Your task to perform on an android device: toggle improve location accuracy Image 0: 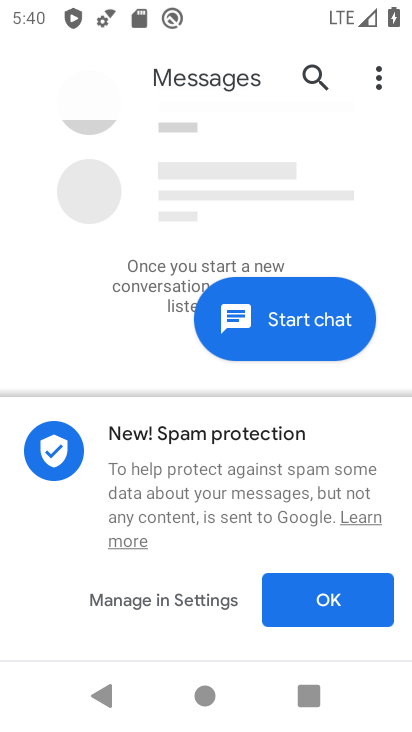
Step 0: drag from (326, 538) to (232, 112)
Your task to perform on an android device: toggle improve location accuracy Image 1: 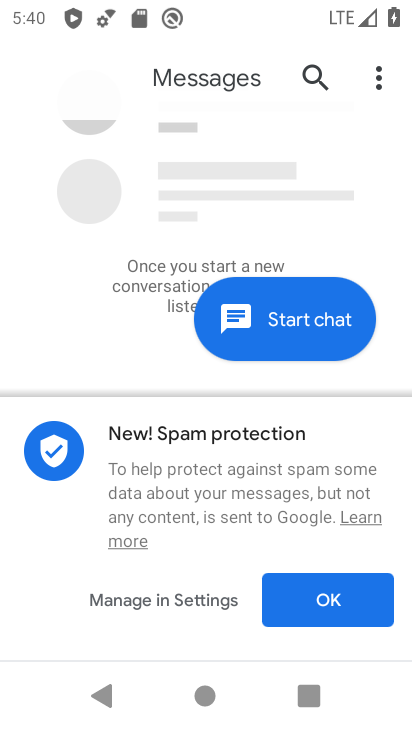
Step 1: press home button
Your task to perform on an android device: toggle improve location accuracy Image 2: 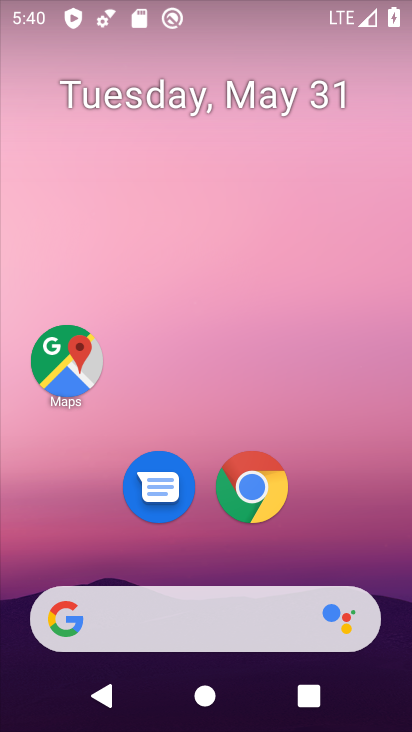
Step 2: drag from (348, 535) to (276, 75)
Your task to perform on an android device: toggle improve location accuracy Image 3: 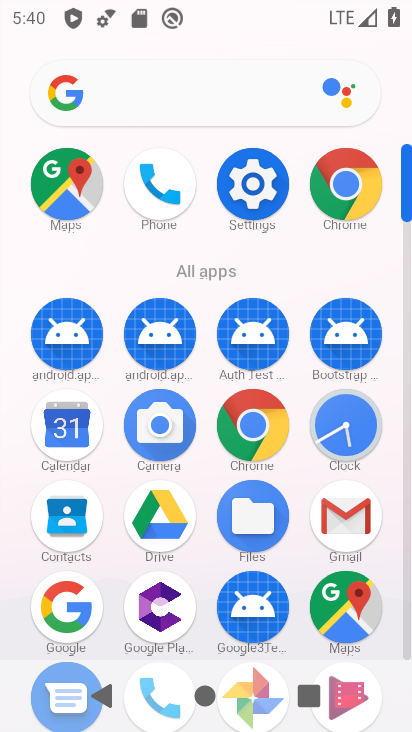
Step 3: click (250, 178)
Your task to perform on an android device: toggle improve location accuracy Image 4: 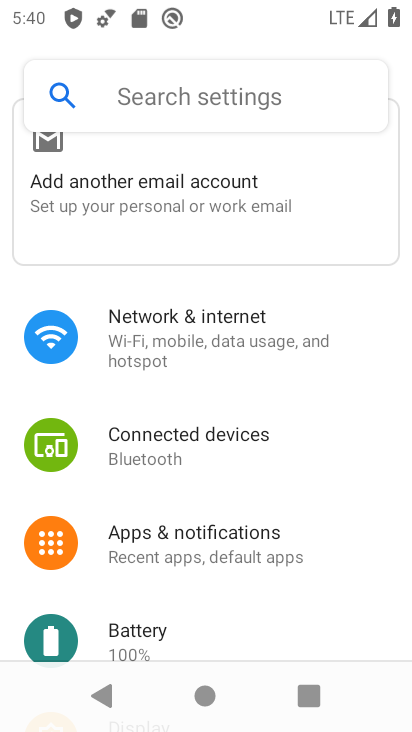
Step 4: drag from (239, 595) to (212, 285)
Your task to perform on an android device: toggle improve location accuracy Image 5: 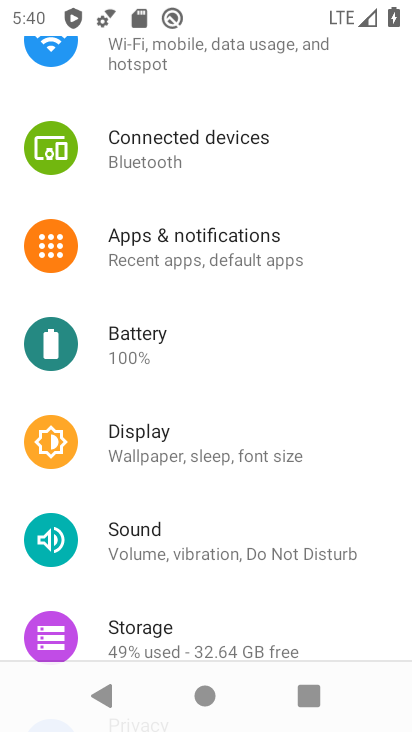
Step 5: drag from (220, 598) to (202, 275)
Your task to perform on an android device: toggle improve location accuracy Image 6: 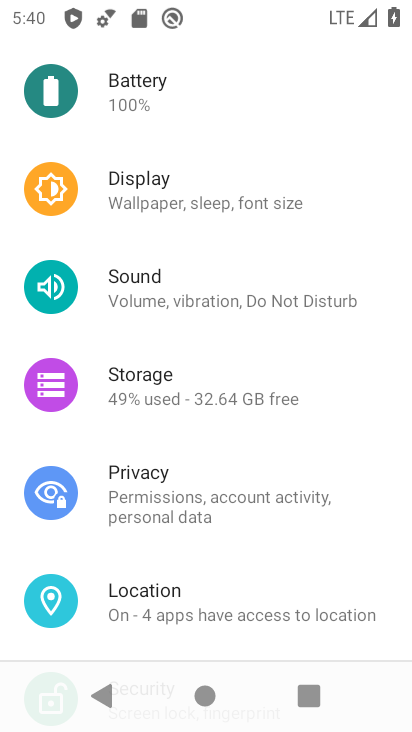
Step 6: click (137, 583)
Your task to perform on an android device: toggle improve location accuracy Image 7: 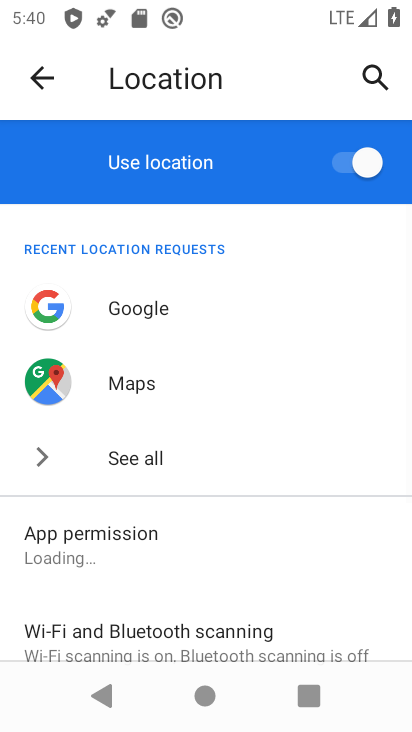
Step 7: drag from (215, 536) to (211, 236)
Your task to perform on an android device: toggle improve location accuracy Image 8: 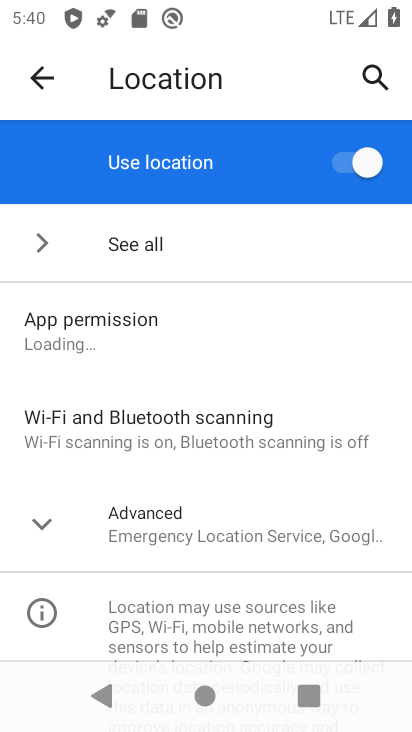
Step 8: click (48, 533)
Your task to perform on an android device: toggle improve location accuracy Image 9: 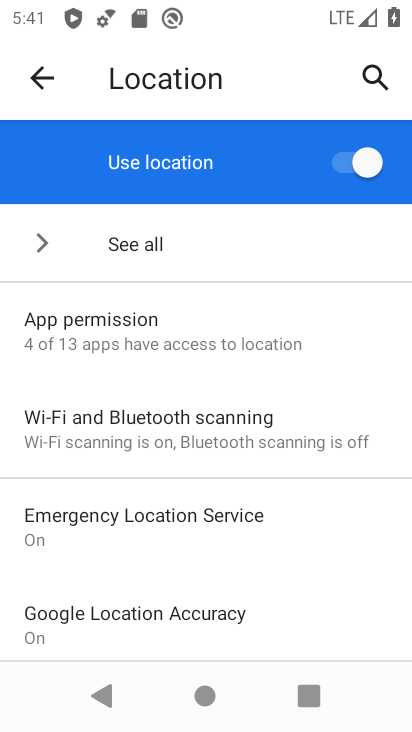
Step 9: click (125, 618)
Your task to perform on an android device: toggle improve location accuracy Image 10: 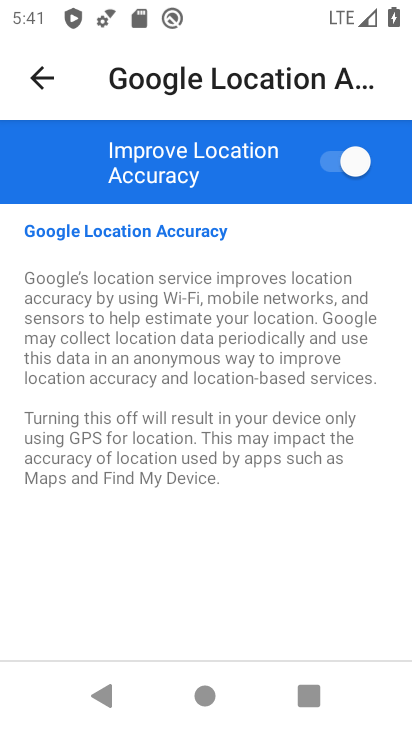
Step 10: click (350, 154)
Your task to perform on an android device: toggle improve location accuracy Image 11: 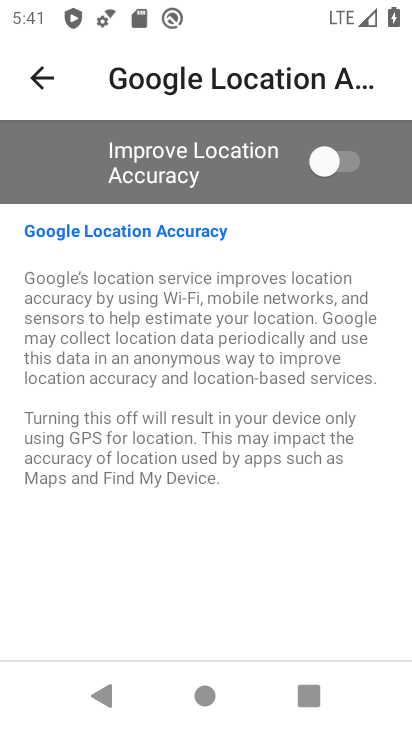
Step 11: task complete